Your task to perform on an android device: Go to network settings Image 0: 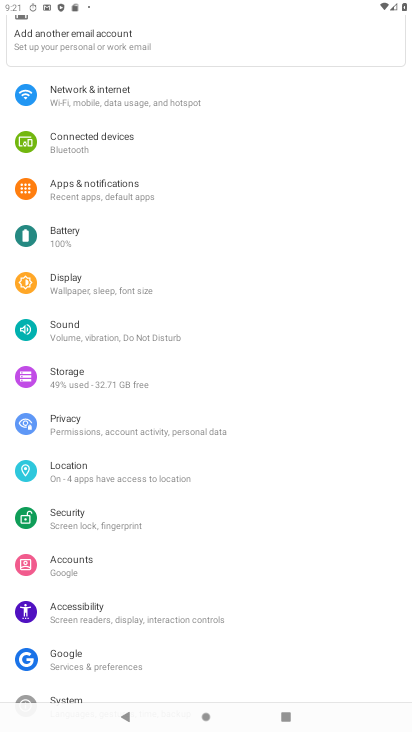
Step 0: press back button
Your task to perform on an android device: Go to network settings Image 1: 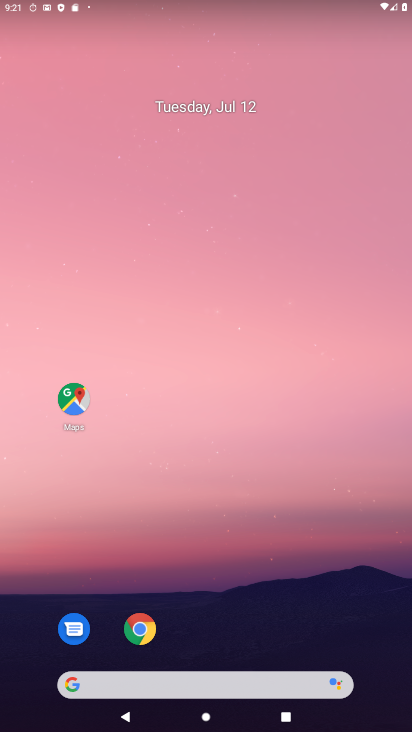
Step 1: drag from (204, 572) to (188, 270)
Your task to perform on an android device: Go to network settings Image 2: 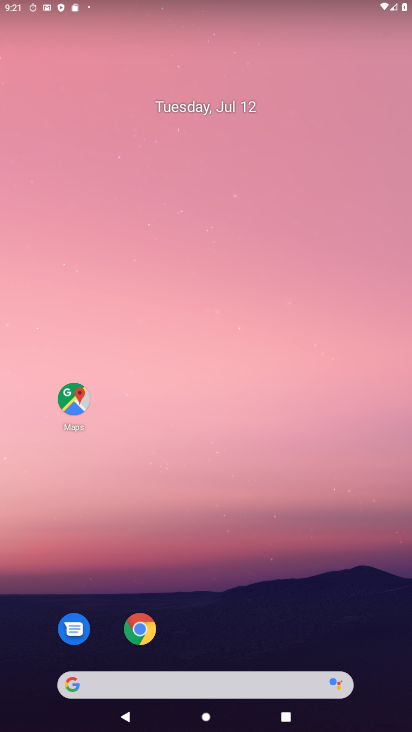
Step 2: drag from (174, 629) to (174, 161)
Your task to perform on an android device: Go to network settings Image 3: 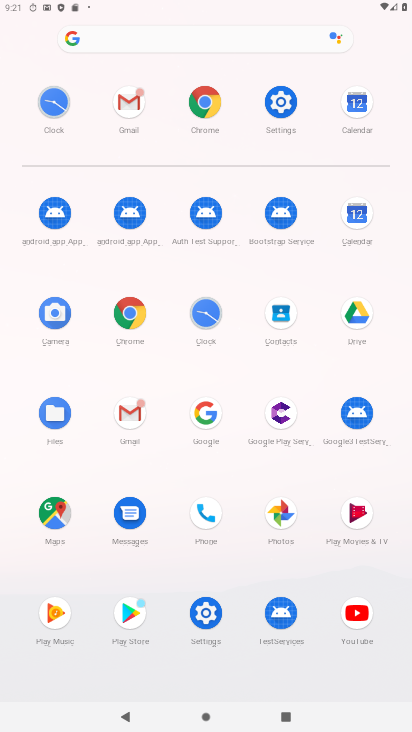
Step 3: click (208, 619)
Your task to perform on an android device: Go to network settings Image 4: 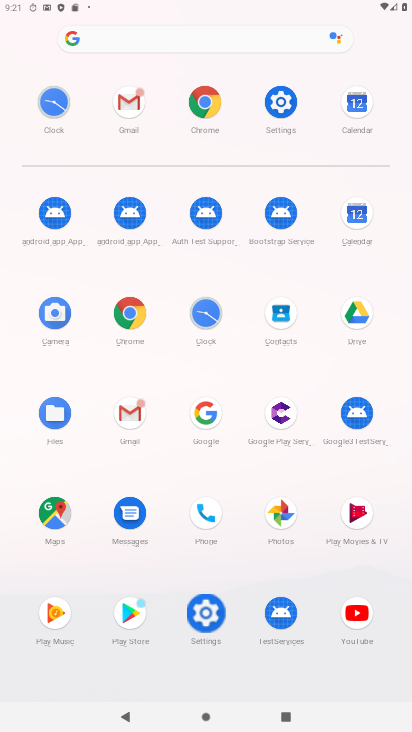
Step 4: click (211, 613)
Your task to perform on an android device: Go to network settings Image 5: 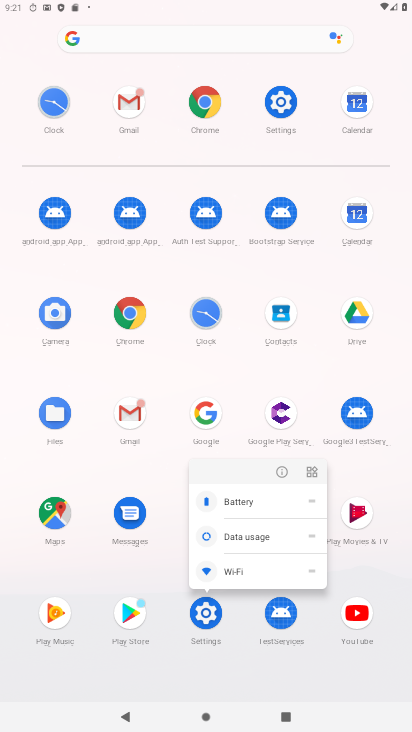
Step 5: click (190, 617)
Your task to perform on an android device: Go to network settings Image 6: 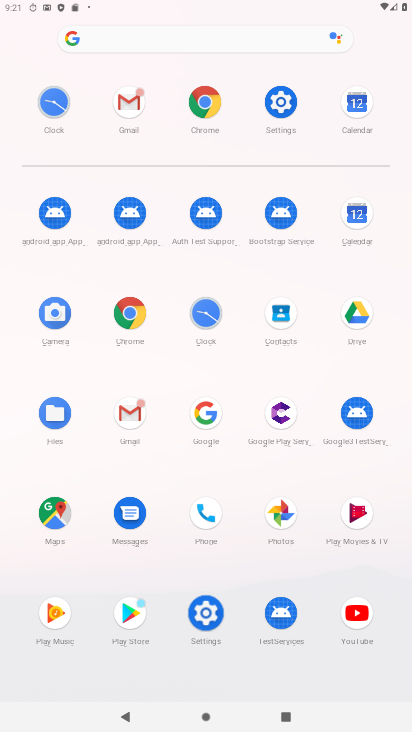
Step 6: click (198, 616)
Your task to perform on an android device: Go to network settings Image 7: 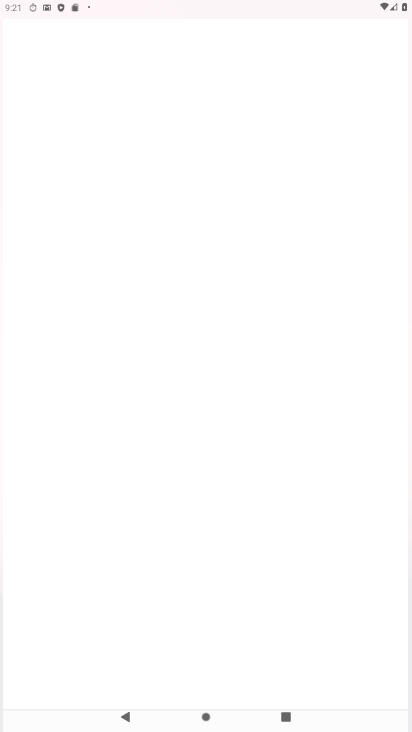
Step 7: click (202, 615)
Your task to perform on an android device: Go to network settings Image 8: 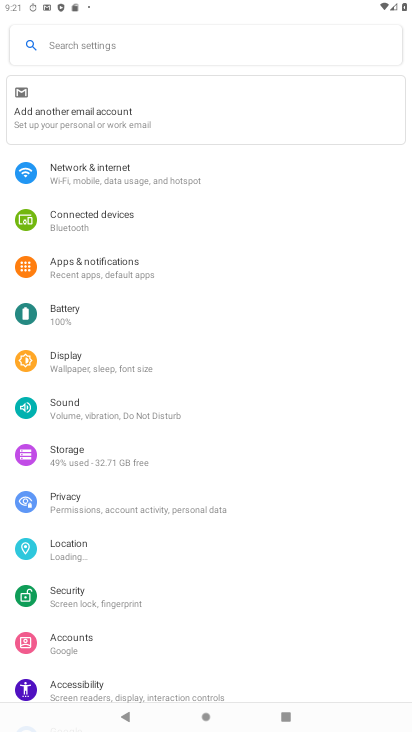
Step 8: click (108, 185)
Your task to perform on an android device: Go to network settings Image 9: 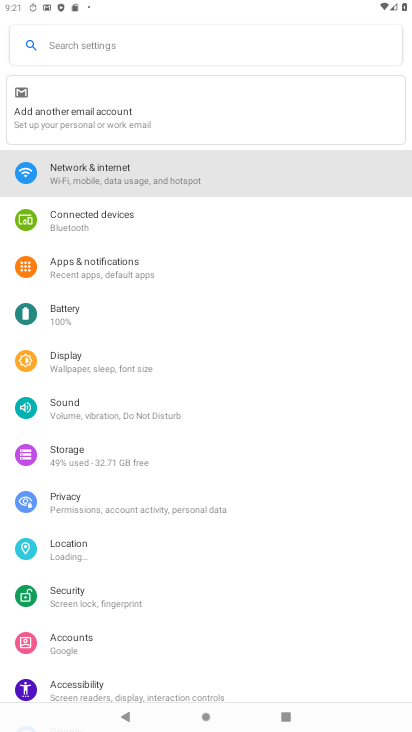
Step 9: click (106, 184)
Your task to perform on an android device: Go to network settings Image 10: 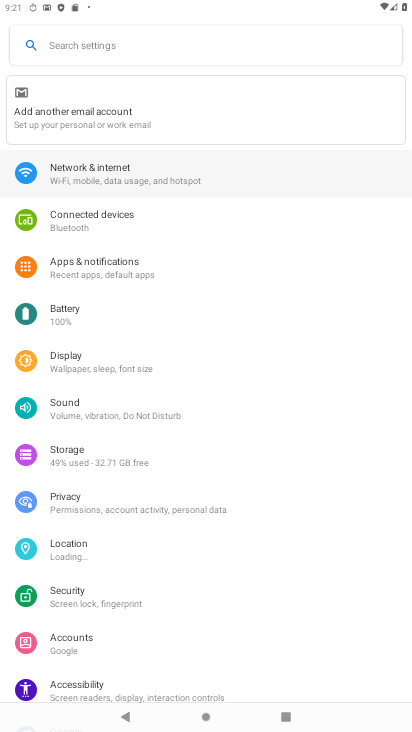
Step 10: click (106, 184)
Your task to perform on an android device: Go to network settings Image 11: 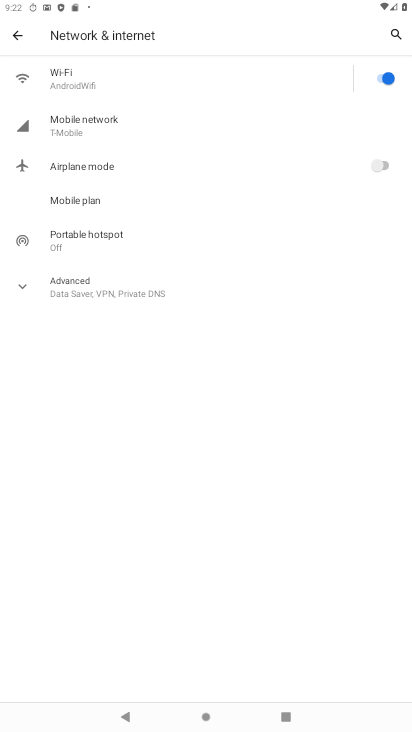
Step 11: task complete